Your task to perform on an android device: toggle airplane mode Image 0: 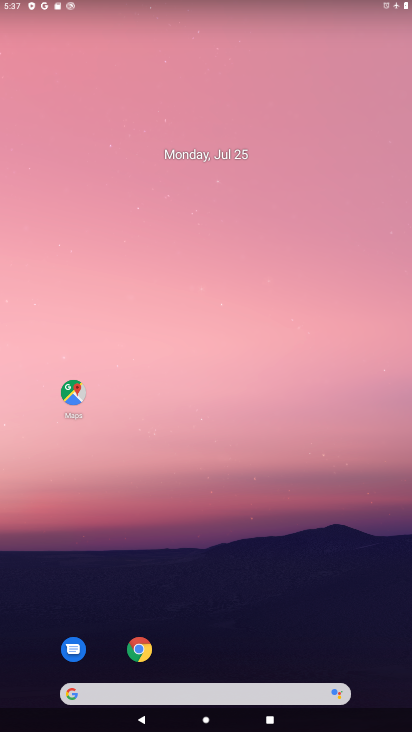
Step 0: drag from (299, 601) to (332, 59)
Your task to perform on an android device: toggle airplane mode Image 1: 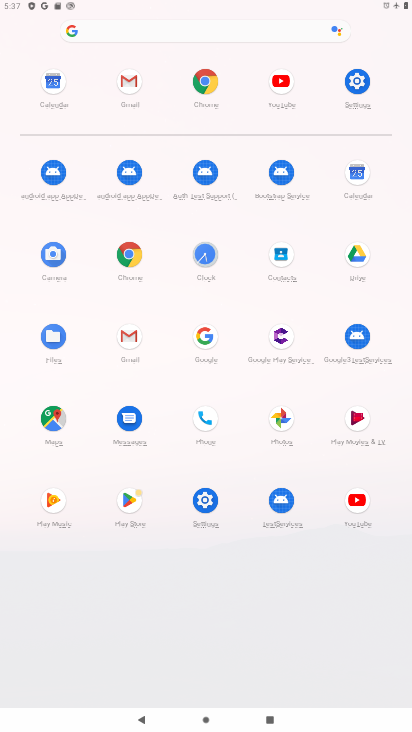
Step 1: click (357, 76)
Your task to perform on an android device: toggle airplane mode Image 2: 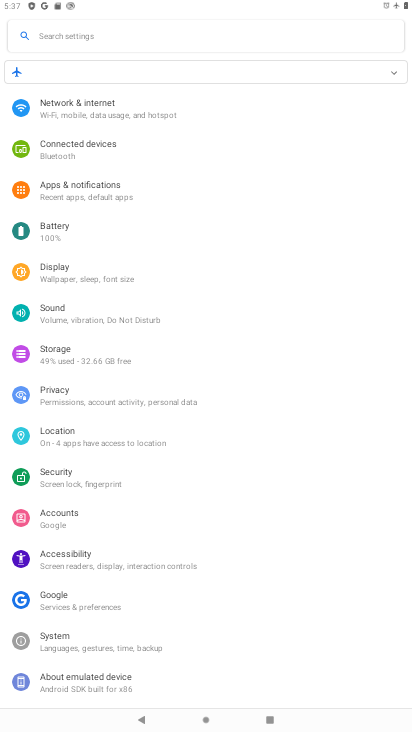
Step 2: click (100, 112)
Your task to perform on an android device: toggle airplane mode Image 3: 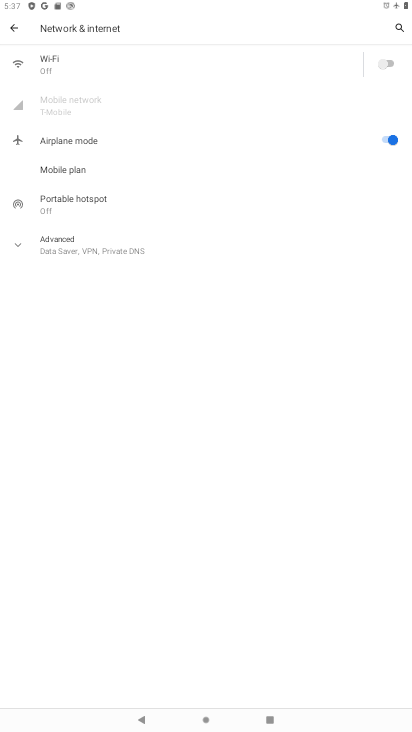
Step 3: click (389, 139)
Your task to perform on an android device: toggle airplane mode Image 4: 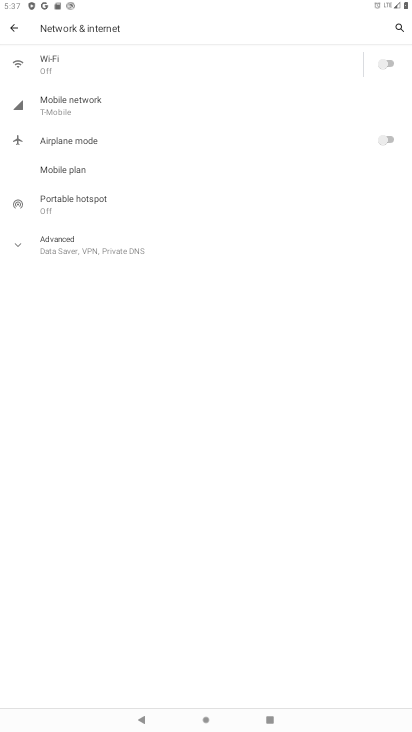
Step 4: task complete